Your task to perform on an android device: Go to CNN.com Image 0: 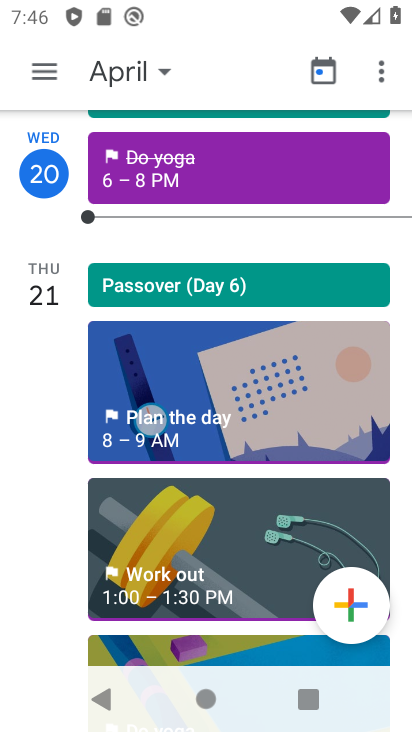
Step 0: press back button
Your task to perform on an android device: Go to CNN.com Image 1: 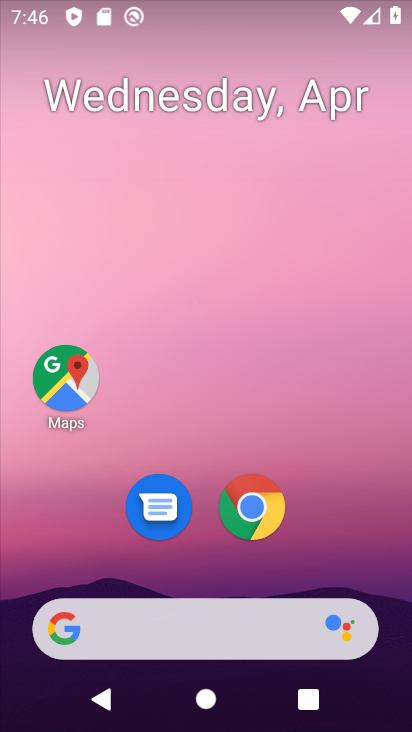
Step 1: drag from (312, 537) to (254, 20)
Your task to perform on an android device: Go to CNN.com Image 2: 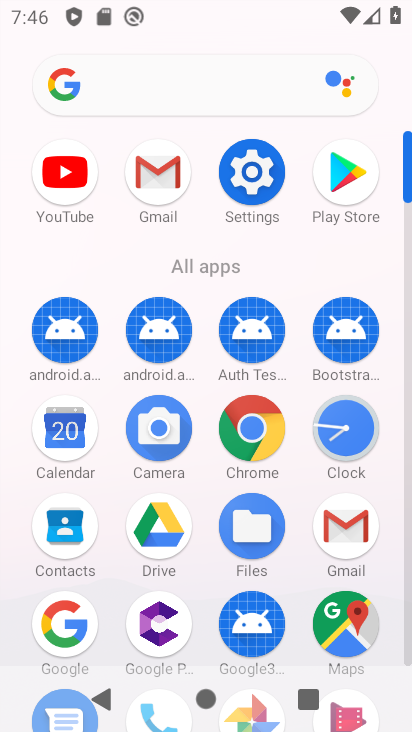
Step 2: click (249, 420)
Your task to perform on an android device: Go to CNN.com Image 3: 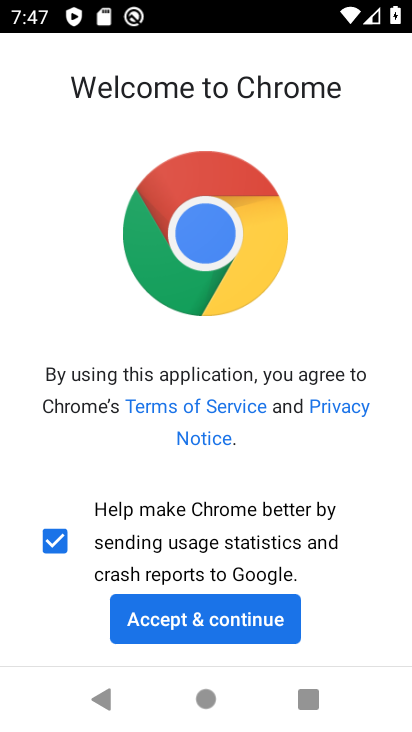
Step 3: click (204, 622)
Your task to perform on an android device: Go to CNN.com Image 4: 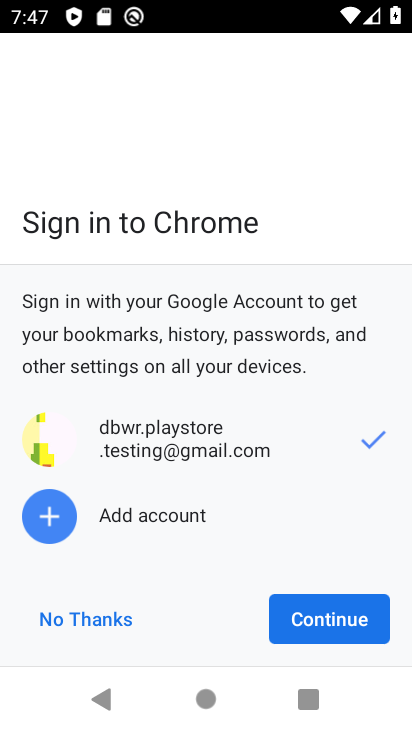
Step 4: click (312, 620)
Your task to perform on an android device: Go to CNN.com Image 5: 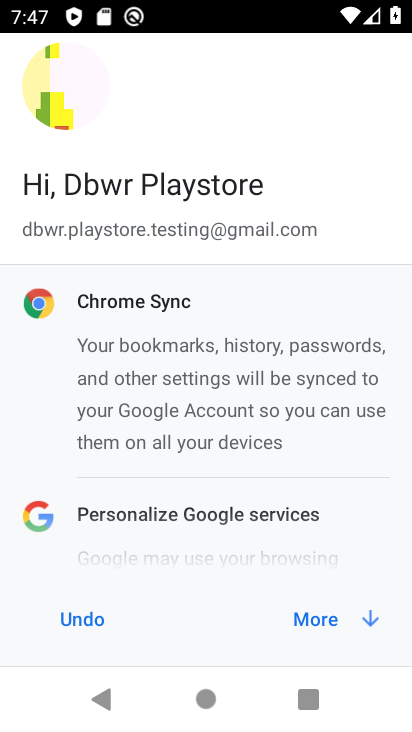
Step 5: click (305, 623)
Your task to perform on an android device: Go to CNN.com Image 6: 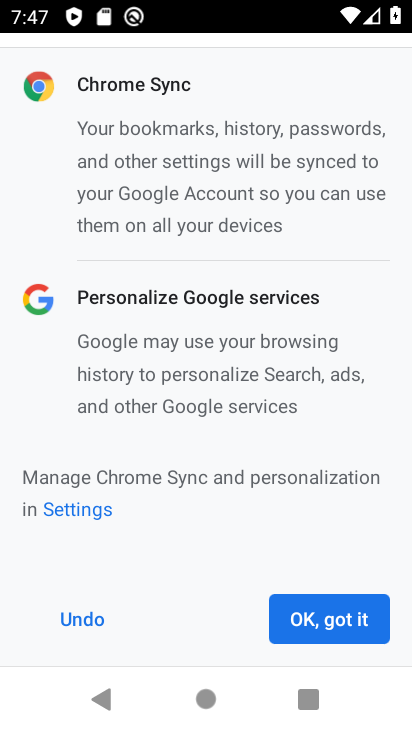
Step 6: click (305, 623)
Your task to perform on an android device: Go to CNN.com Image 7: 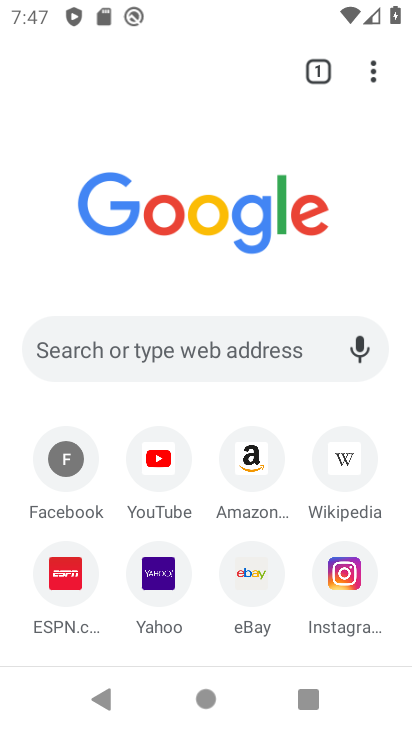
Step 7: click (224, 346)
Your task to perform on an android device: Go to CNN.com Image 8: 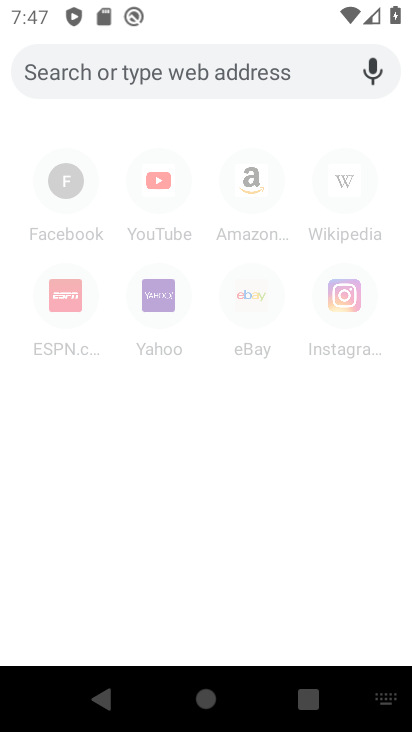
Step 8: type "CNN.com"
Your task to perform on an android device: Go to CNN.com Image 9: 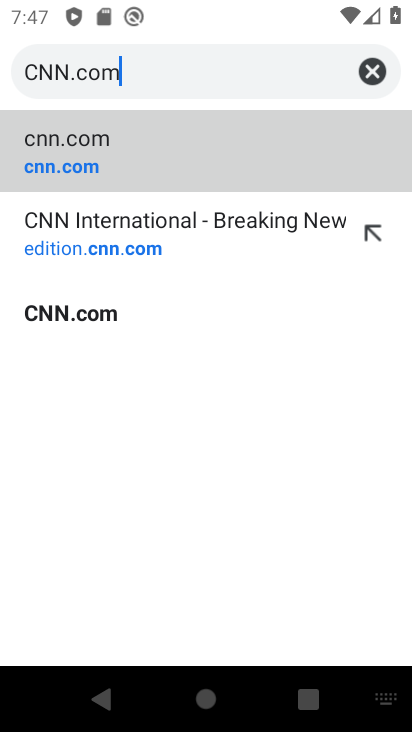
Step 9: type ""
Your task to perform on an android device: Go to CNN.com Image 10: 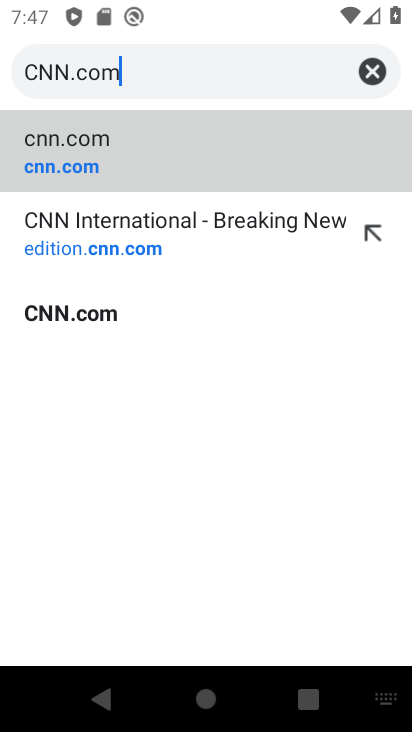
Step 10: click (129, 143)
Your task to perform on an android device: Go to CNN.com Image 11: 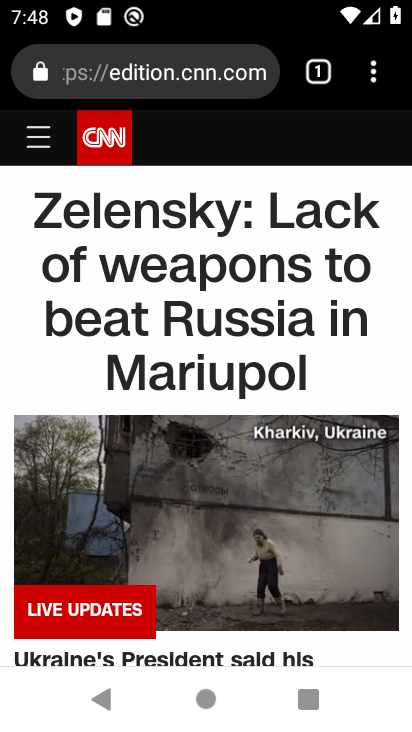
Step 11: task complete